Your task to perform on an android device: refresh tabs in the chrome app Image 0: 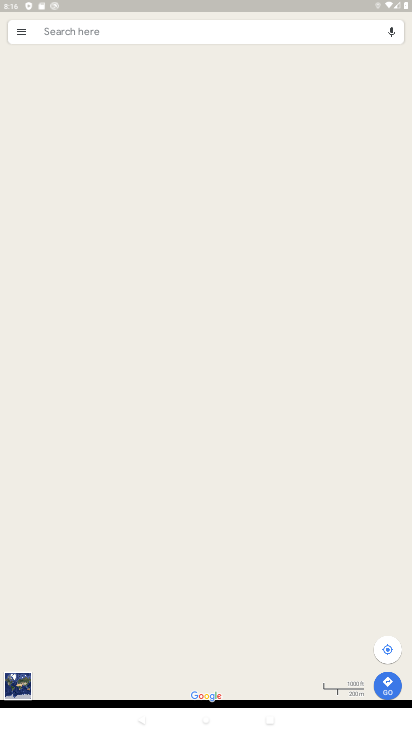
Step 0: press home button
Your task to perform on an android device: refresh tabs in the chrome app Image 1: 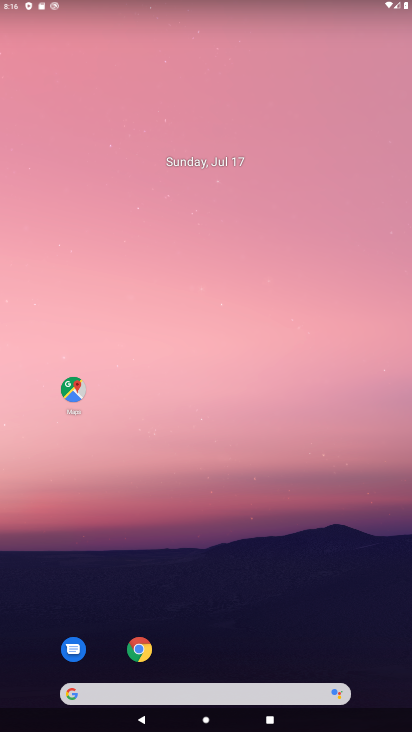
Step 1: click (141, 651)
Your task to perform on an android device: refresh tabs in the chrome app Image 2: 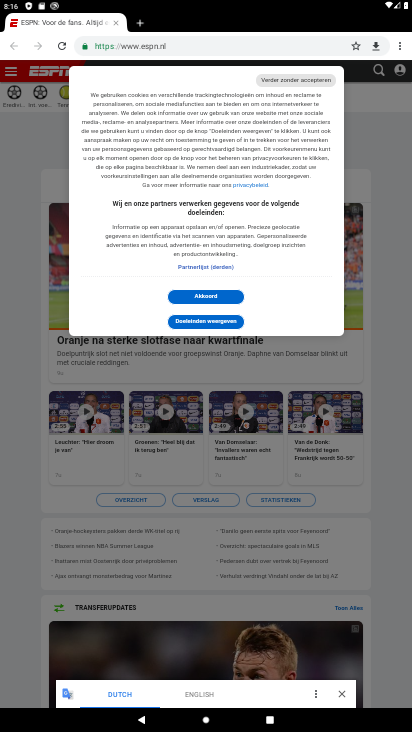
Step 2: click (395, 47)
Your task to perform on an android device: refresh tabs in the chrome app Image 3: 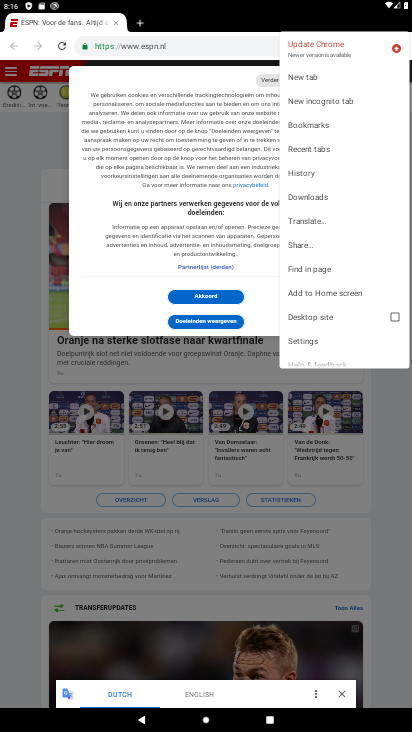
Step 3: click (193, 41)
Your task to perform on an android device: refresh tabs in the chrome app Image 4: 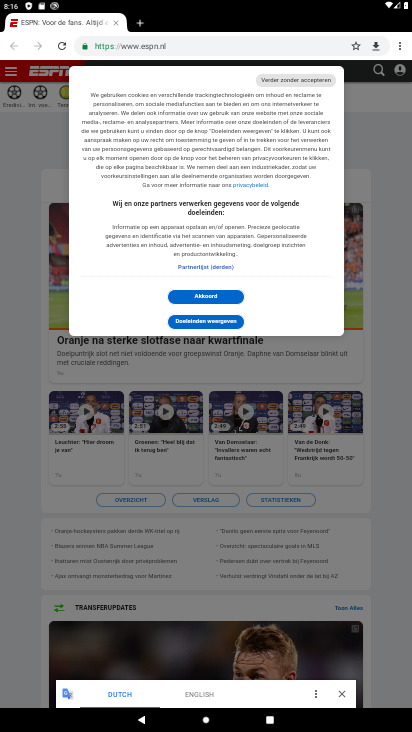
Step 4: click (61, 46)
Your task to perform on an android device: refresh tabs in the chrome app Image 5: 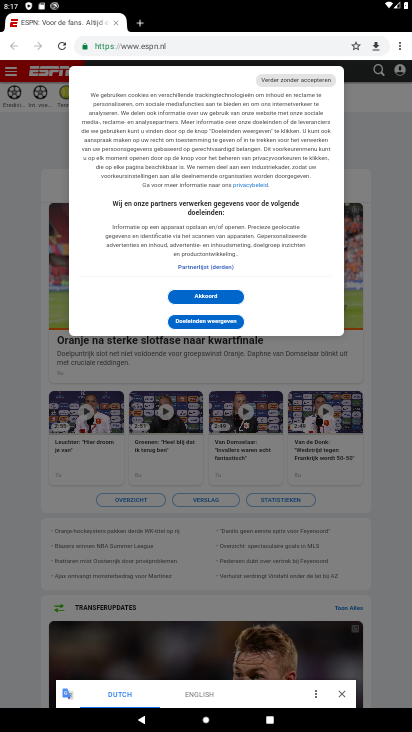
Step 5: task complete